Your task to perform on an android device: open chrome privacy settings Image 0: 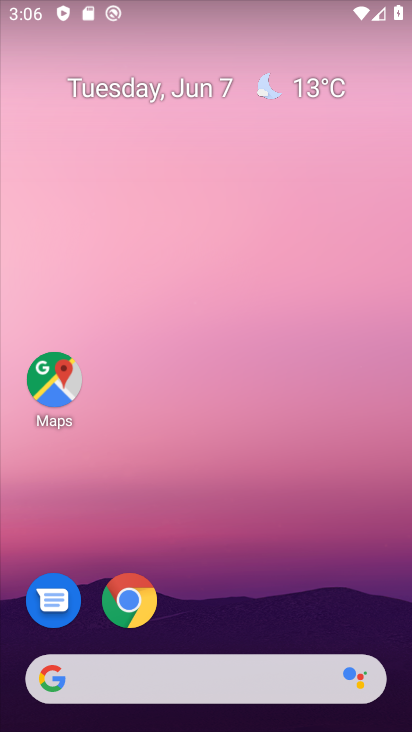
Step 0: click (131, 612)
Your task to perform on an android device: open chrome privacy settings Image 1: 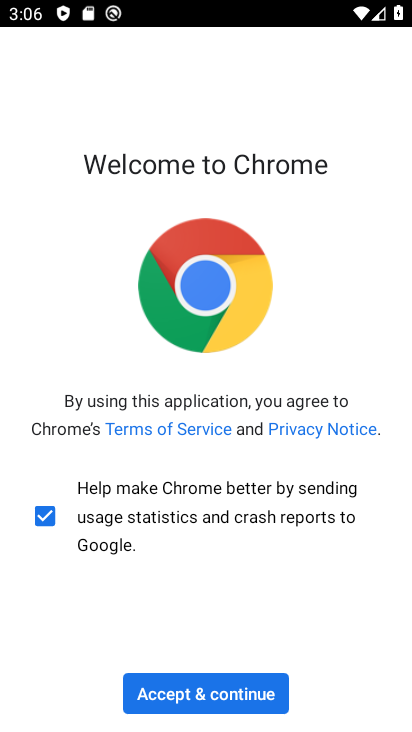
Step 1: click (207, 674)
Your task to perform on an android device: open chrome privacy settings Image 2: 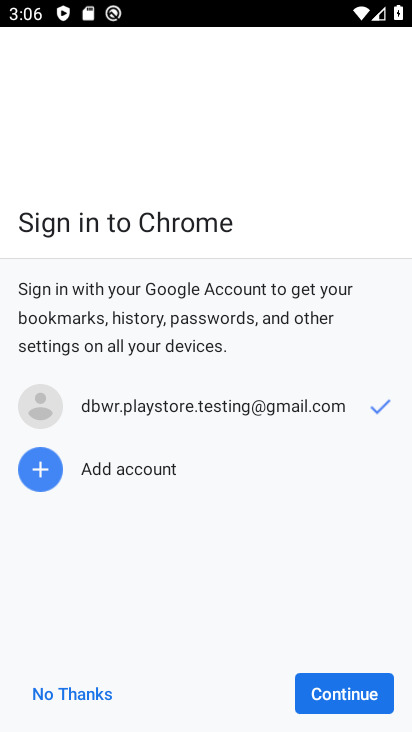
Step 2: click (374, 691)
Your task to perform on an android device: open chrome privacy settings Image 3: 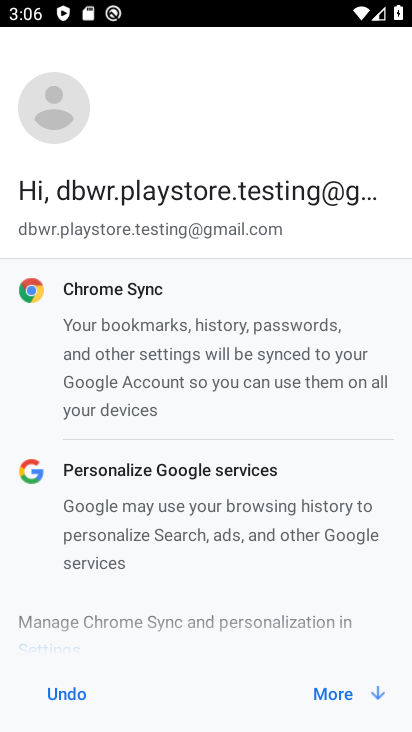
Step 3: click (372, 687)
Your task to perform on an android device: open chrome privacy settings Image 4: 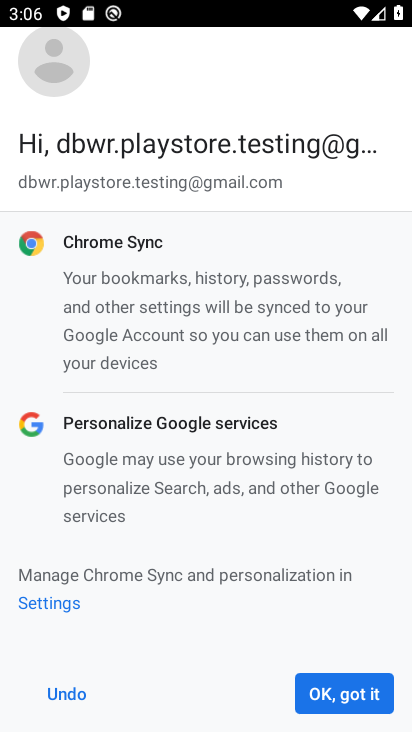
Step 4: click (369, 689)
Your task to perform on an android device: open chrome privacy settings Image 5: 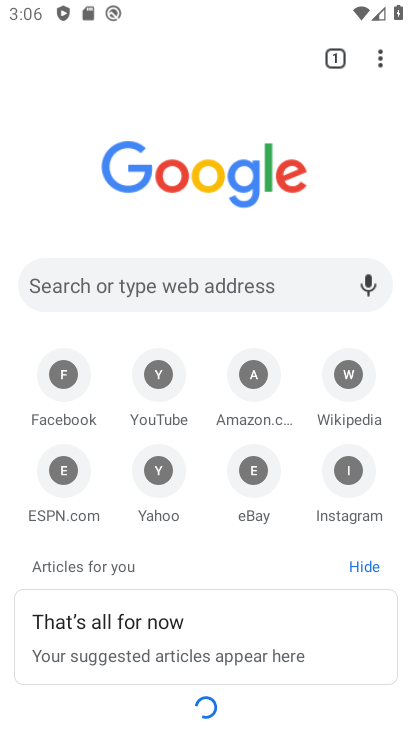
Step 5: drag from (380, 55) to (210, 499)
Your task to perform on an android device: open chrome privacy settings Image 6: 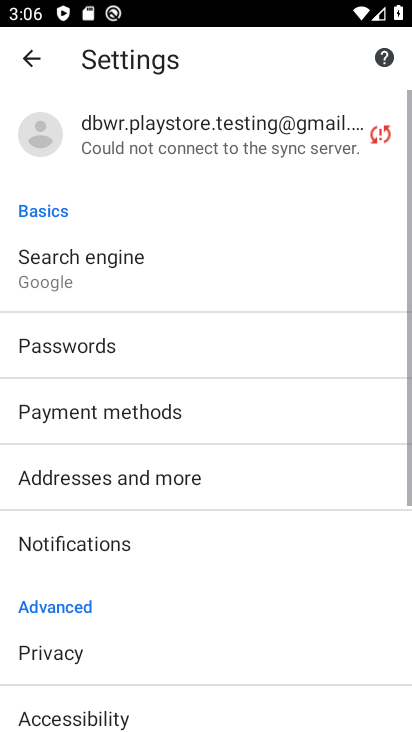
Step 6: drag from (299, 603) to (337, 117)
Your task to perform on an android device: open chrome privacy settings Image 7: 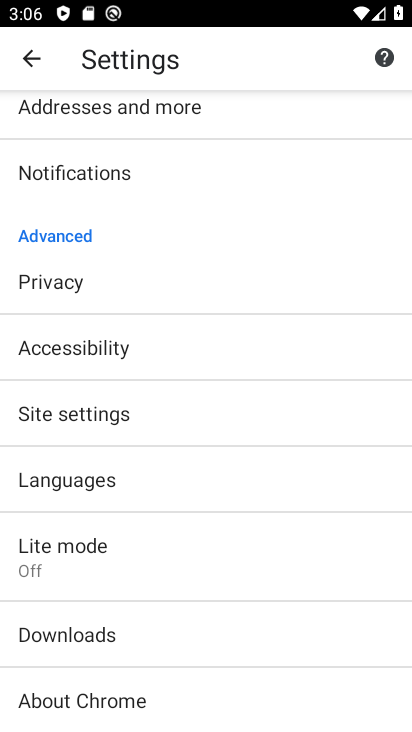
Step 7: click (78, 289)
Your task to perform on an android device: open chrome privacy settings Image 8: 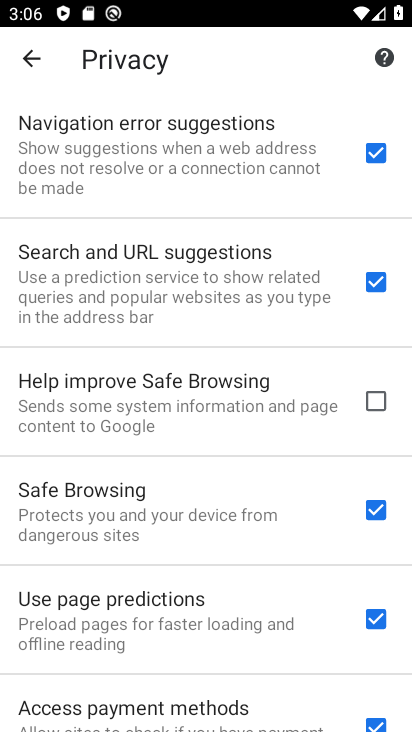
Step 8: task complete